Your task to perform on an android device: turn on wifi Image 0: 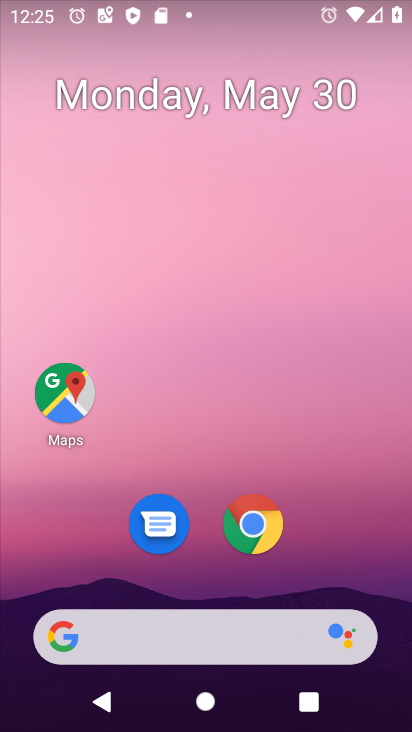
Step 0: drag from (201, 437) to (221, 0)
Your task to perform on an android device: turn on wifi Image 1: 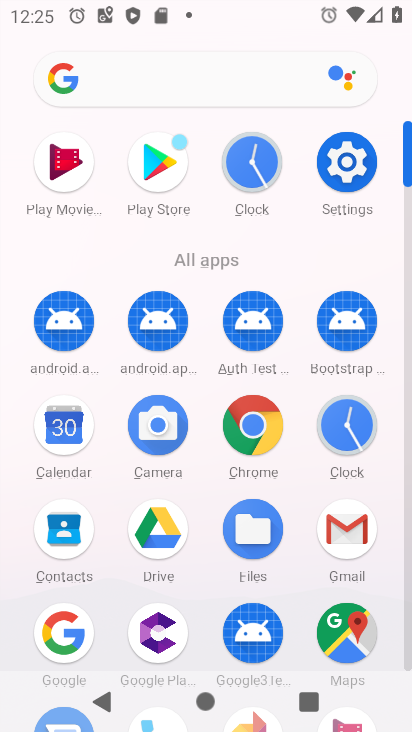
Step 1: click (345, 164)
Your task to perform on an android device: turn on wifi Image 2: 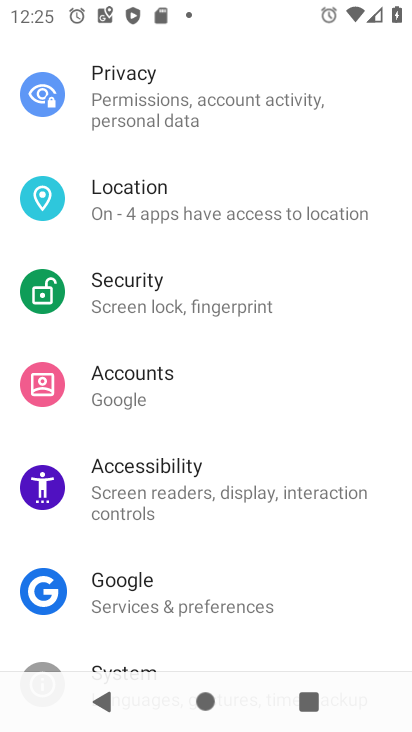
Step 2: drag from (230, 285) to (225, 647)
Your task to perform on an android device: turn on wifi Image 3: 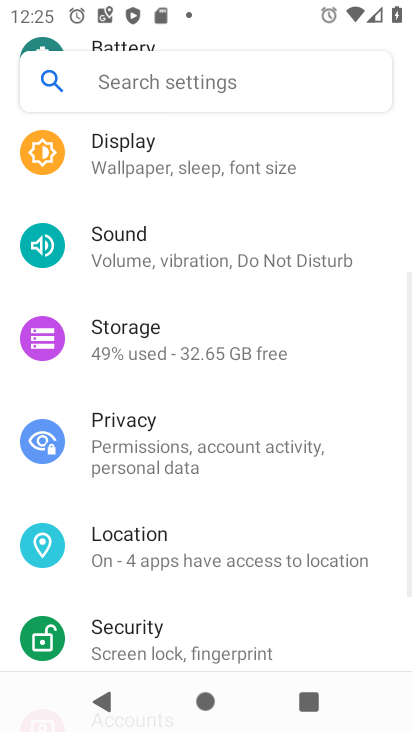
Step 3: drag from (217, 245) to (214, 621)
Your task to perform on an android device: turn on wifi Image 4: 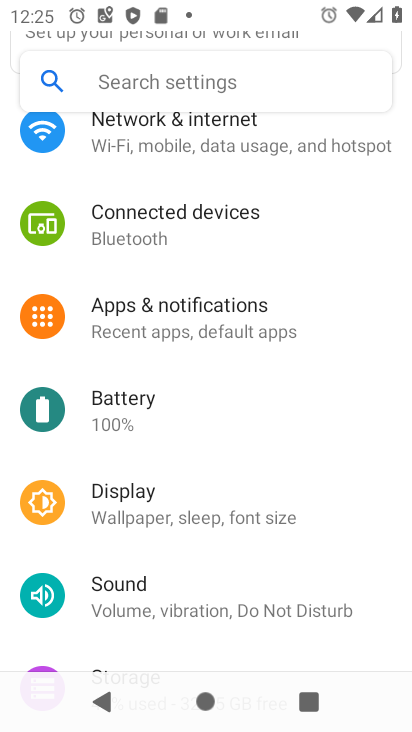
Step 4: drag from (238, 326) to (236, 549)
Your task to perform on an android device: turn on wifi Image 5: 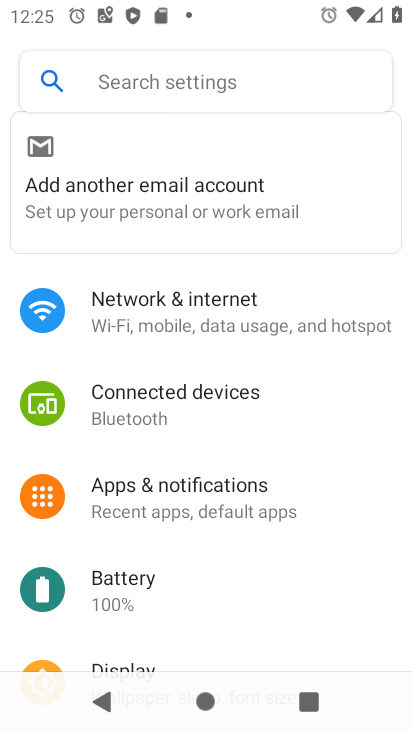
Step 5: click (273, 313)
Your task to perform on an android device: turn on wifi Image 6: 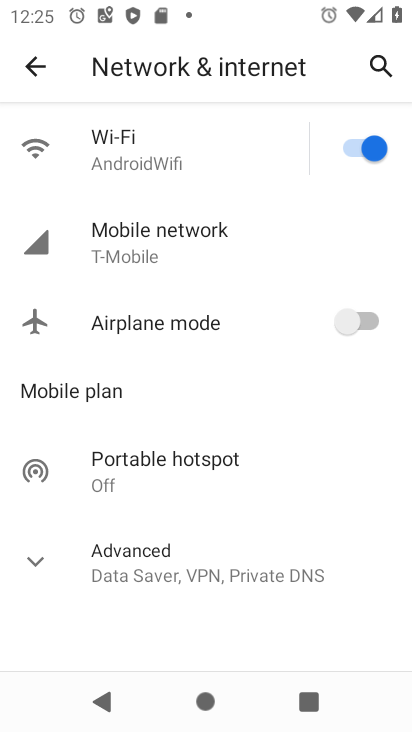
Step 6: task complete